Your task to perform on an android device: Go to internet settings Image 0: 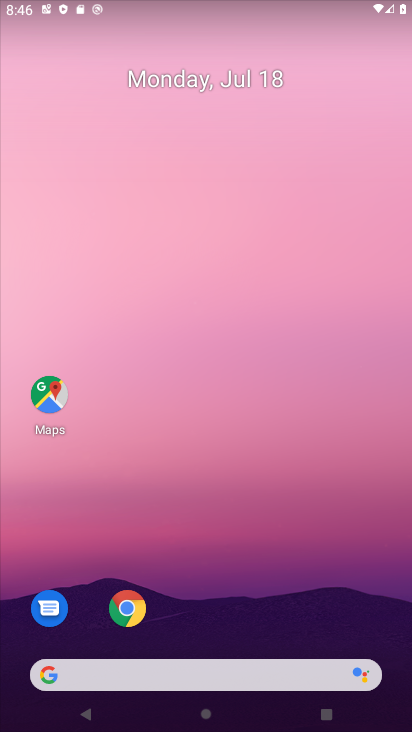
Step 0: drag from (248, 719) to (248, 127)
Your task to perform on an android device: Go to internet settings Image 1: 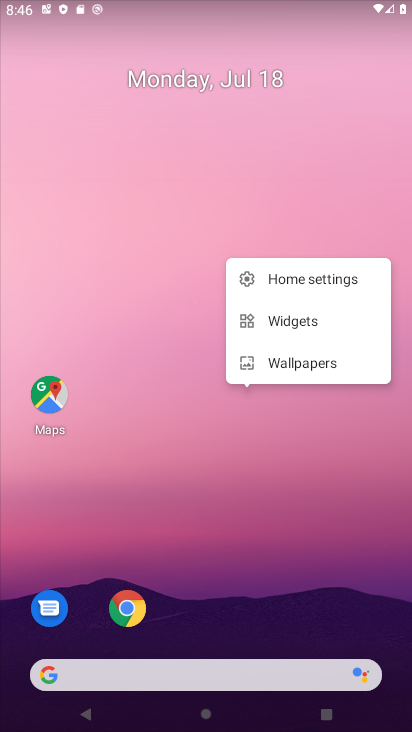
Step 1: click (220, 559)
Your task to perform on an android device: Go to internet settings Image 2: 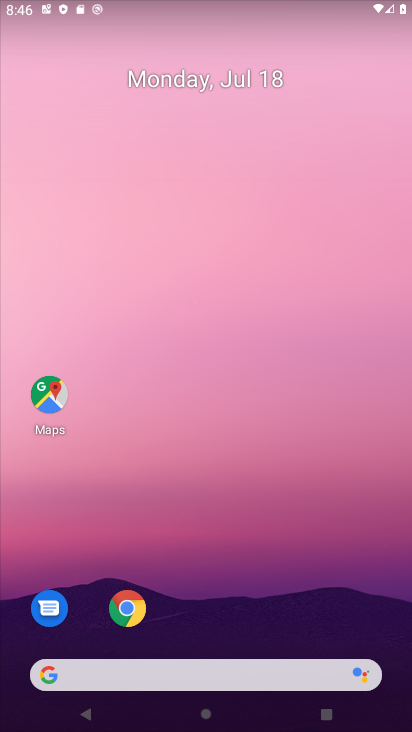
Step 2: click (242, 724)
Your task to perform on an android device: Go to internet settings Image 3: 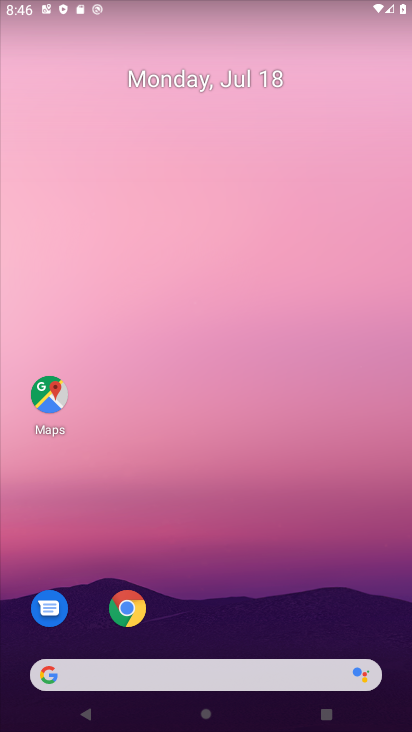
Step 3: drag from (240, 385) to (240, 226)
Your task to perform on an android device: Go to internet settings Image 4: 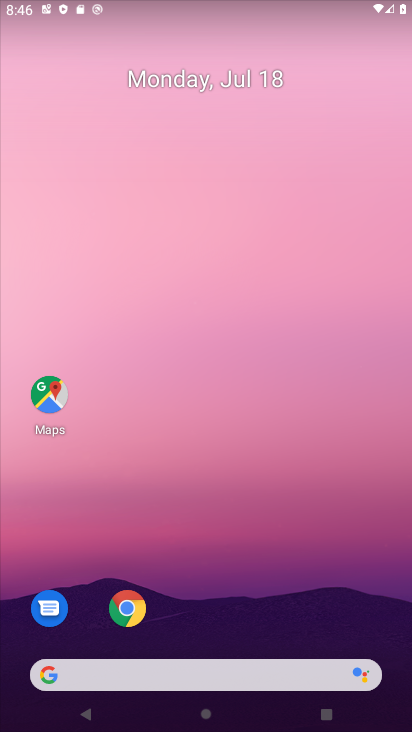
Step 4: drag from (231, 724) to (231, 113)
Your task to perform on an android device: Go to internet settings Image 5: 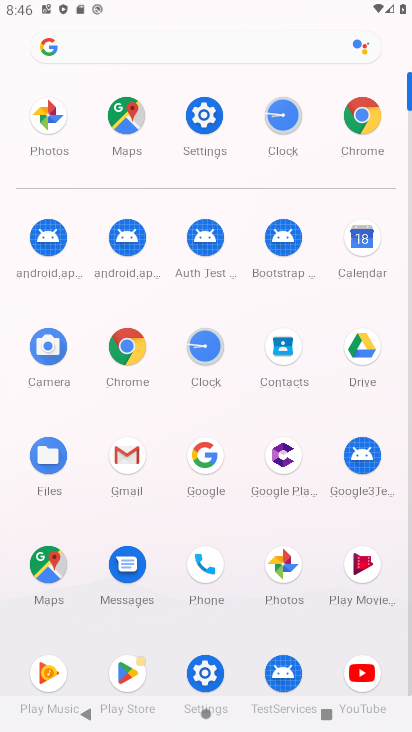
Step 5: click (195, 107)
Your task to perform on an android device: Go to internet settings Image 6: 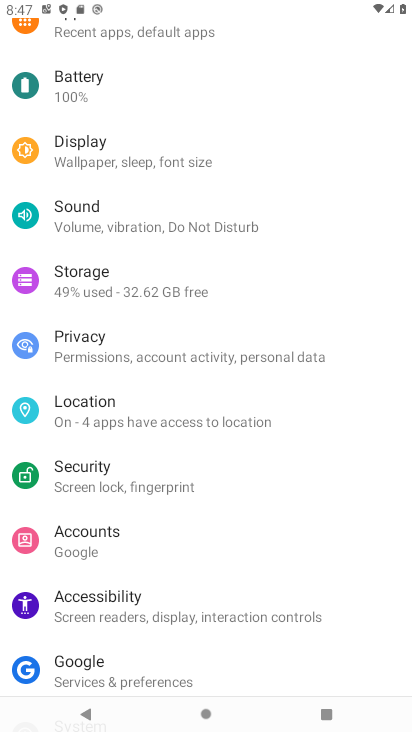
Step 6: drag from (191, 121) to (187, 387)
Your task to perform on an android device: Go to internet settings Image 7: 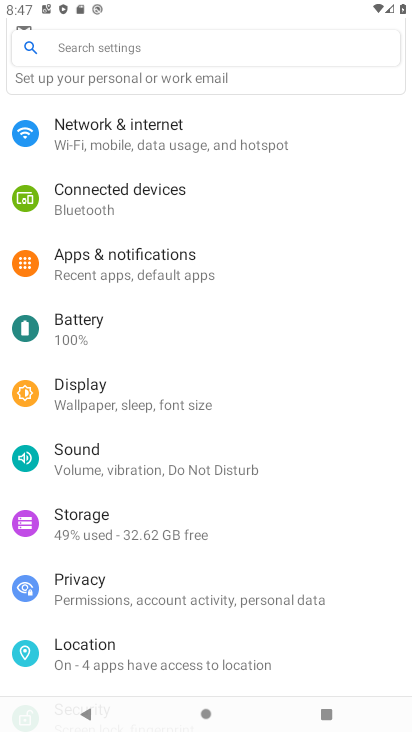
Step 7: click (117, 139)
Your task to perform on an android device: Go to internet settings Image 8: 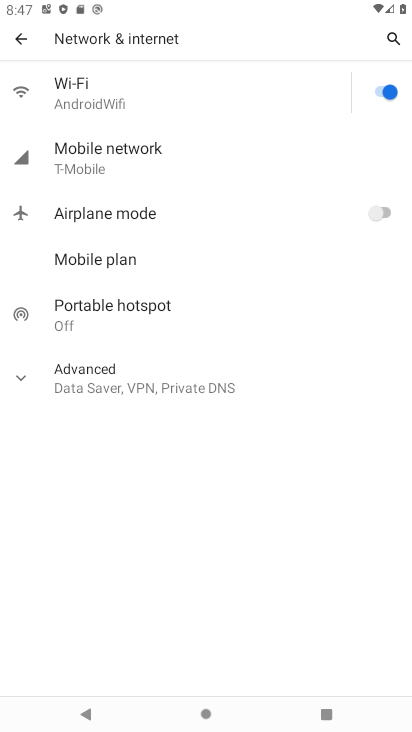
Step 8: task complete